Your task to perform on an android device: find snoozed emails in the gmail app Image 0: 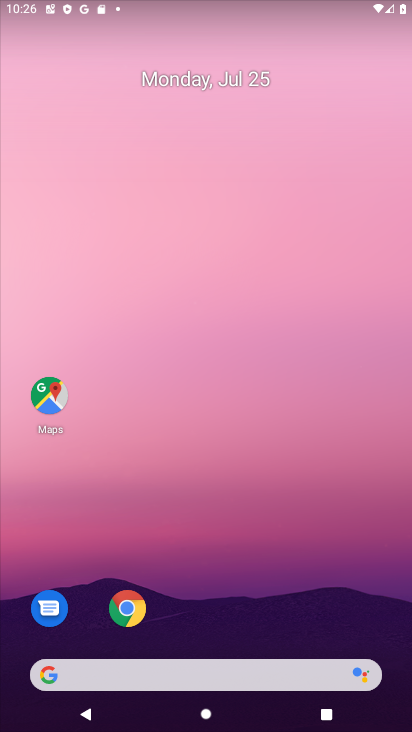
Step 0: drag from (217, 602) to (276, 116)
Your task to perform on an android device: find snoozed emails in the gmail app Image 1: 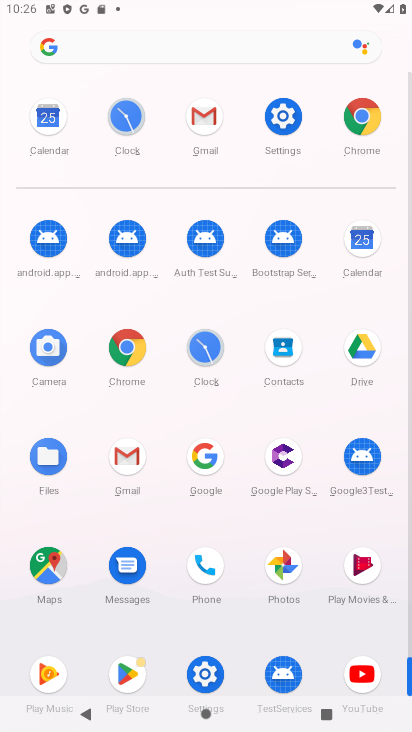
Step 1: click (123, 470)
Your task to perform on an android device: find snoozed emails in the gmail app Image 2: 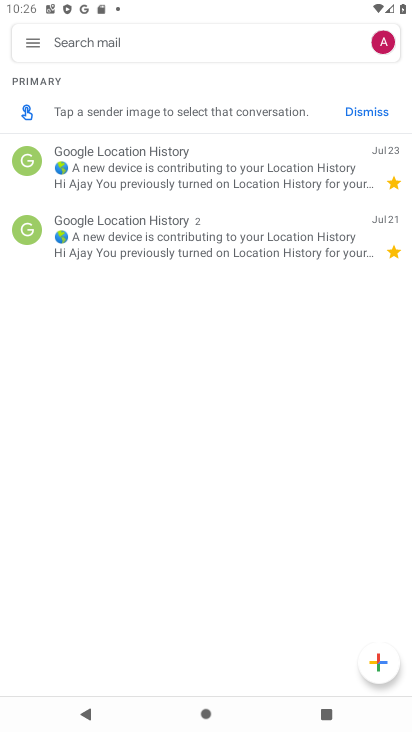
Step 2: click (35, 44)
Your task to perform on an android device: find snoozed emails in the gmail app Image 3: 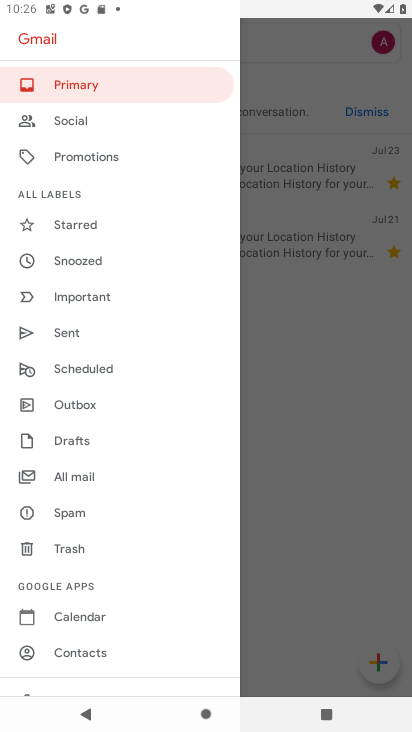
Step 3: click (76, 265)
Your task to perform on an android device: find snoozed emails in the gmail app Image 4: 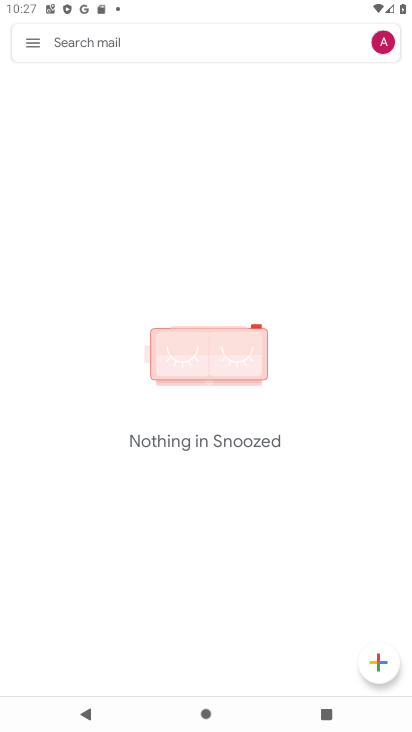
Step 4: task complete